Your task to perform on an android device: Do I have any events this weekend? Image 0: 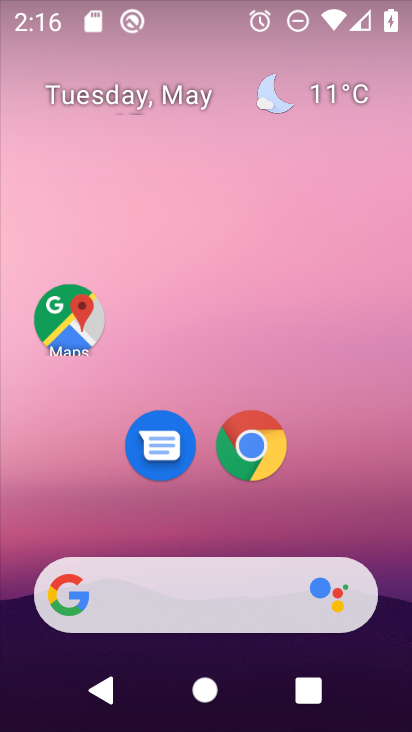
Step 0: drag from (394, 515) to (319, 79)
Your task to perform on an android device: Do I have any events this weekend? Image 1: 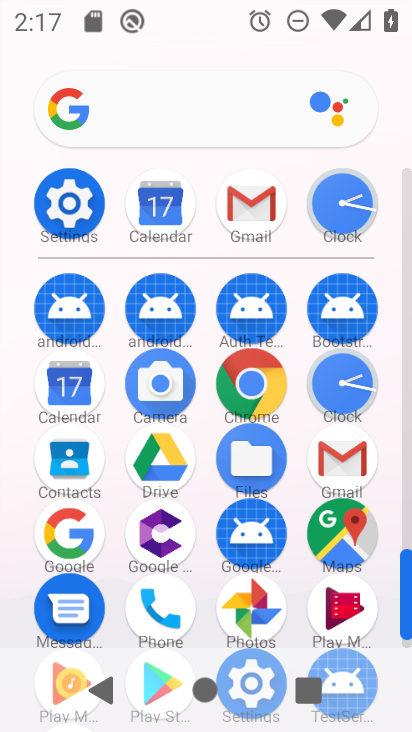
Step 1: click (94, 402)
Your task to perform on an android device: Do I have any events this weekend? Image 2: 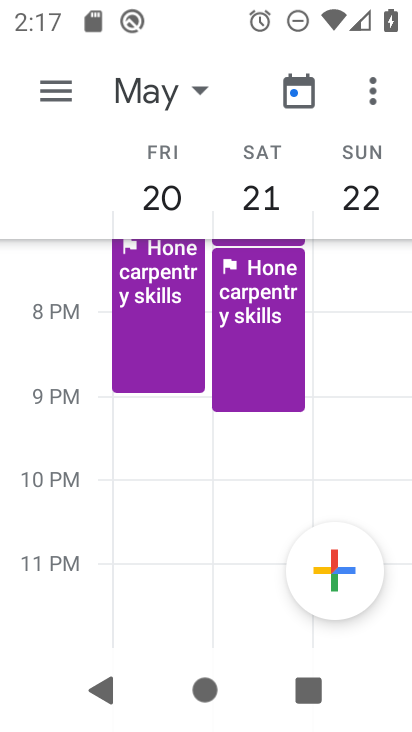
Step 2: click (51, 104)
Your task to perform on an android device: Do I have any events this weekend? Image 3: 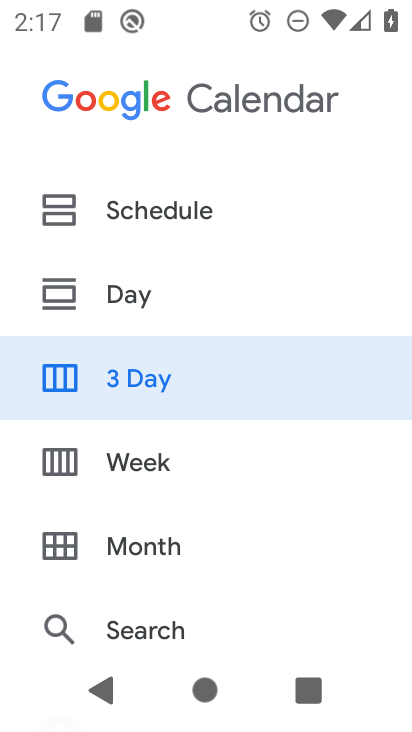
Step 3: click (143, 390)
Your task to perform on an android device: Do I have any events this weekend? Image 4: 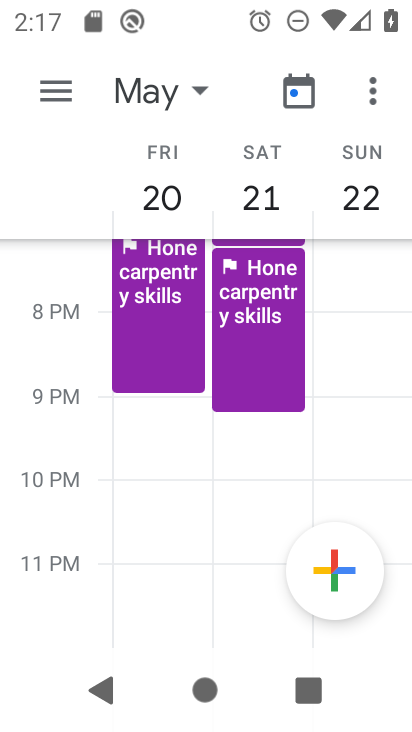
Step 4: task complete